Your task to perform on an android device: see creations saved in the google photos Image 0: 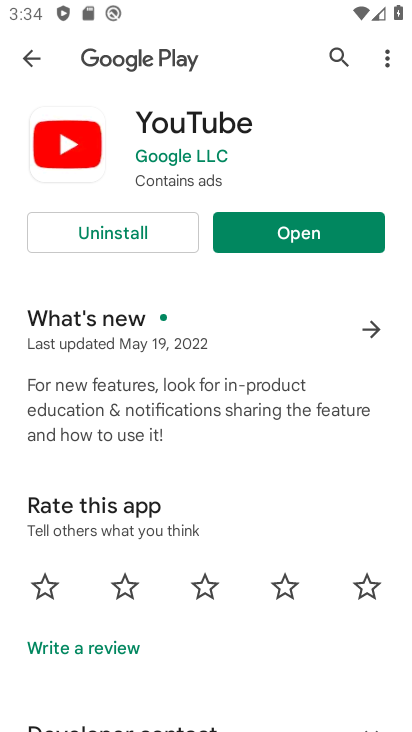
Step 0: press home button
Your task to perform on an android device: see creations saved in the google photos Image 1: 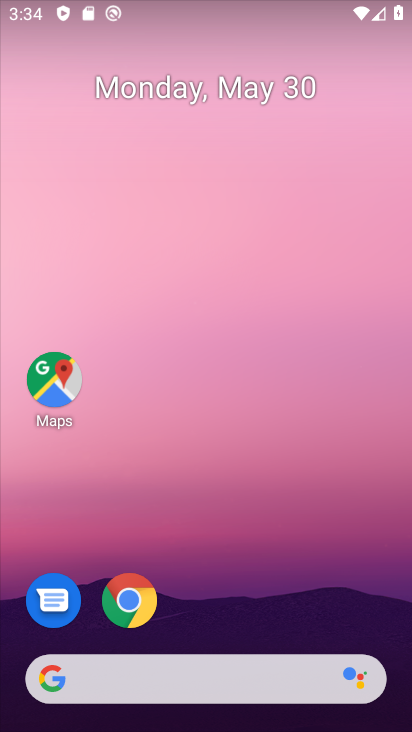
Step 1: drag from (199, 618) to (165, 213)
Your task to perform on an android device: see creations saved in the google photos Image 2: 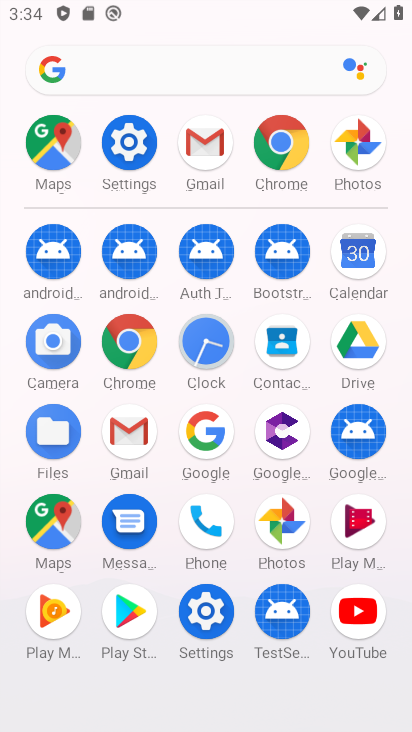
Step 2: click (371, 134)
Your task to perform on an android device: see creations saved in the google photos Image 3: 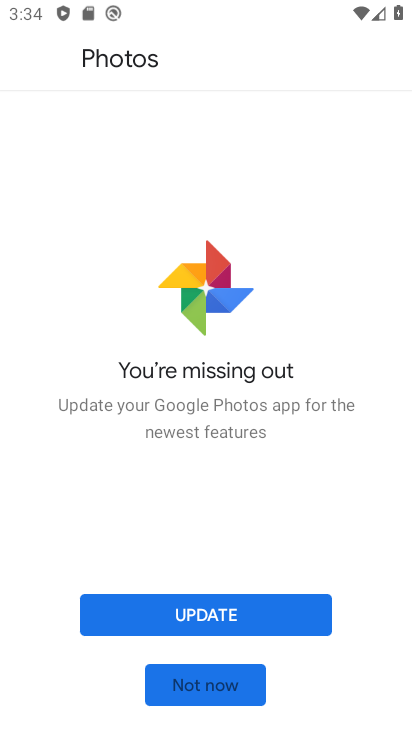
Step 3: click (206, 617)
Your task to perform on an android device: see creations saved in the google photos Image 4: 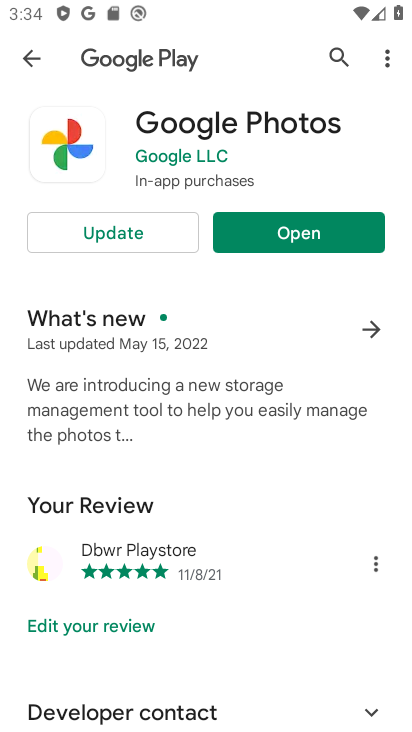
Step 4: click (150, 247)
Your task to perform on an android device: see creations saved in the google photos Image 5: 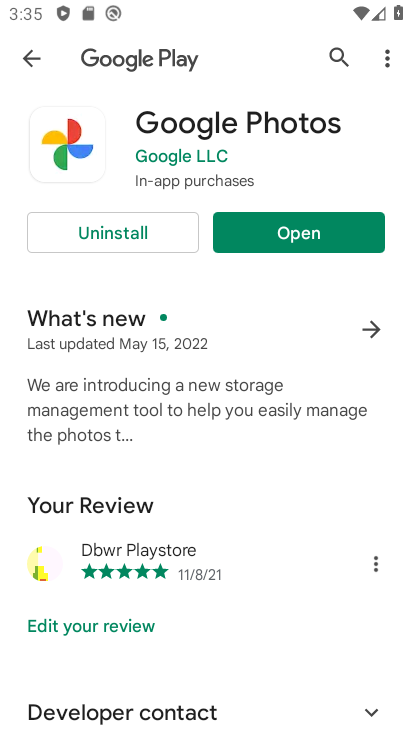
Step 5: click (321, 243)
Your task to perform on an android device: see creations saved in the google photos Image 6: 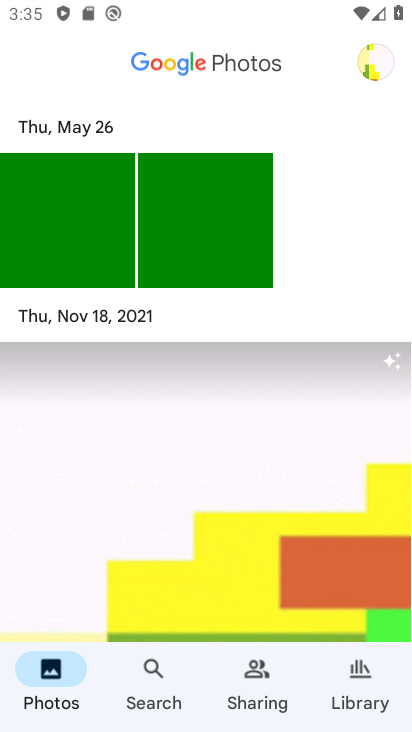
Step 6: task complete